Your task to perform on an android device: show emergency info Image 0: 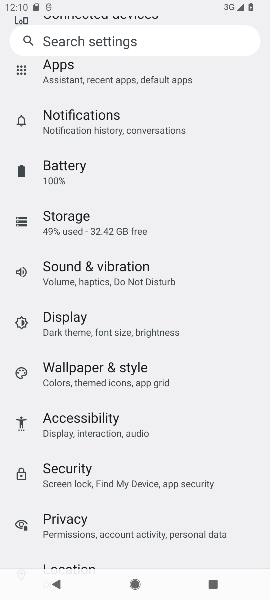
Step 0: drag from (97, 515) to (105, 221)
Your task to perform on an android device: show emergency info Image 1: 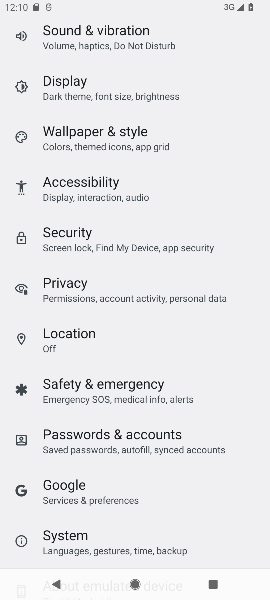
Step 1: drag from (101, 516) to (110, 243)
Your task to perform on an android device: show emergency info Image 2: 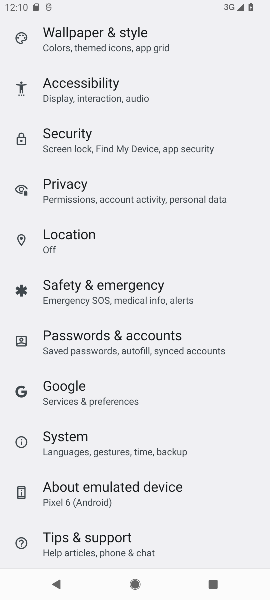
Step 2: click (107, 493)
Your task to perform on an android device: show emergency info Image 3: 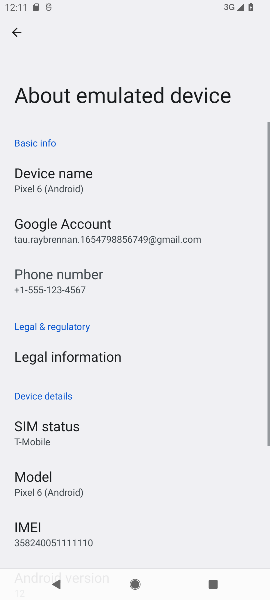
Step 3: drag from (49, 522) to (61, 215)
Your task to perform on an android device: show emergency info Image 4: 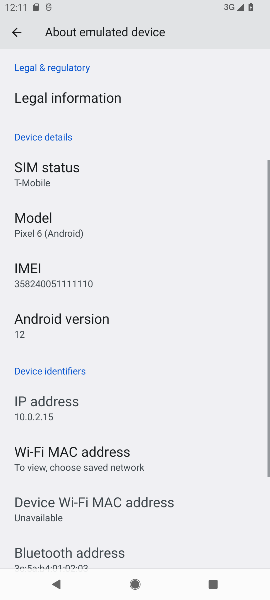
Step 4: drag from (54, 516) to (52, 247)
Your task to perform on an android device: show emergency info Image 5: 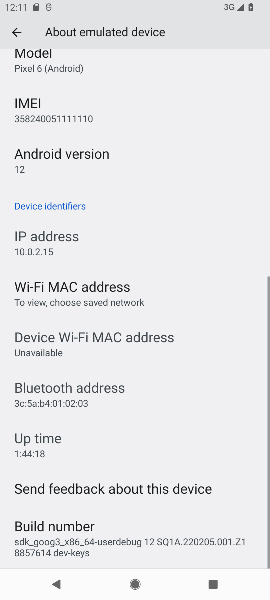
Step 5: drag from (89, 157) to (62, 474)
Your task to perform on an android device: show emergency info Image 6: 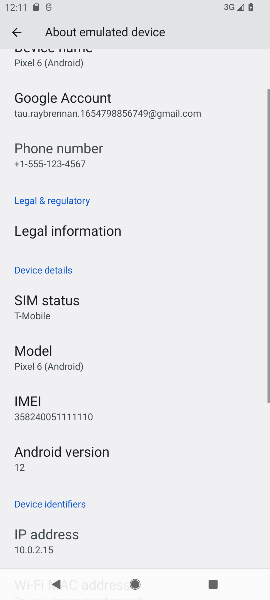
Step 6: click (54, 225)
Your task to perform on an android device: show emergency info Image 7: 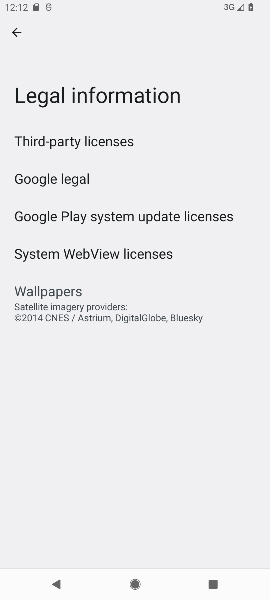
Step 7: task complete